Your task to perform on an android device: Open the phone app and click the voicemail tab. Image 0: 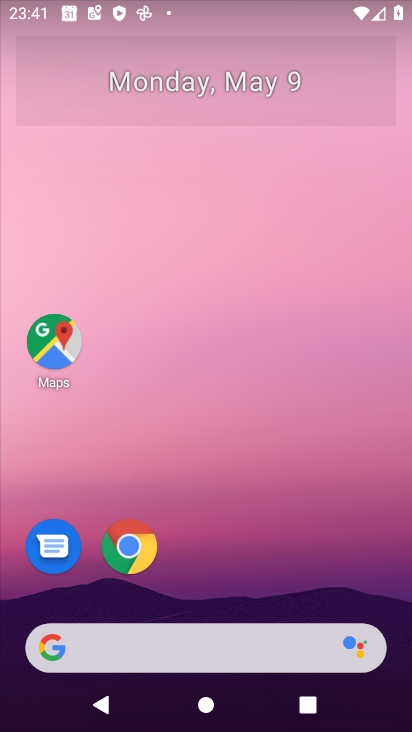
Step 0: drag from (232, 709) to (257, 227)
Your task to perform on an android device: Open the phone app and click the voicemail tab. Image 1: 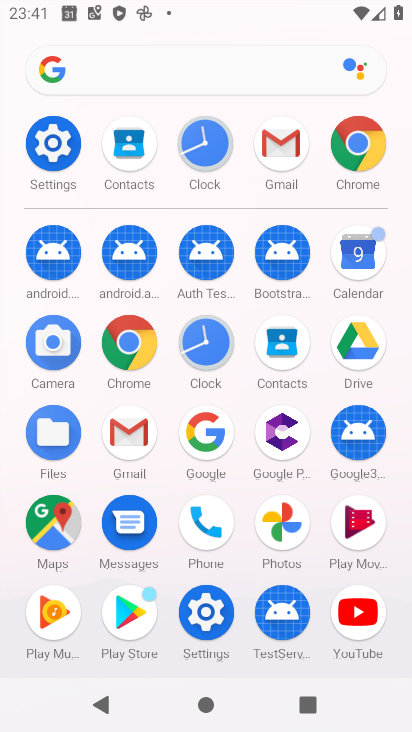
Step 1: click (224, 521)
Your task to perform on an android device: Open the phone app and click the voicemail tab. Image 2: 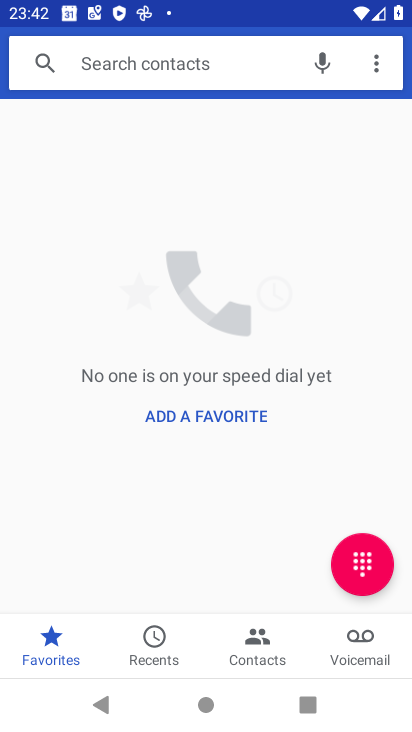
Step 2: click (340, 647)
Your task to perform on an android device: Open the phone app and click the voicemail tab. Image 3: 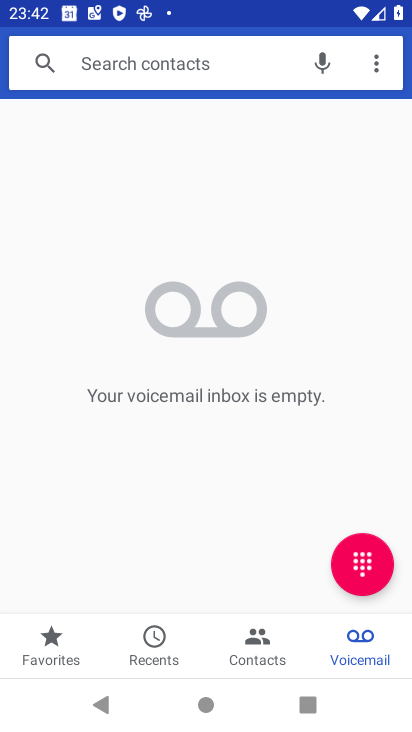
Step 3: task complete